Your task to perform on an android device: turn on data saver in the chrome app Image 0: 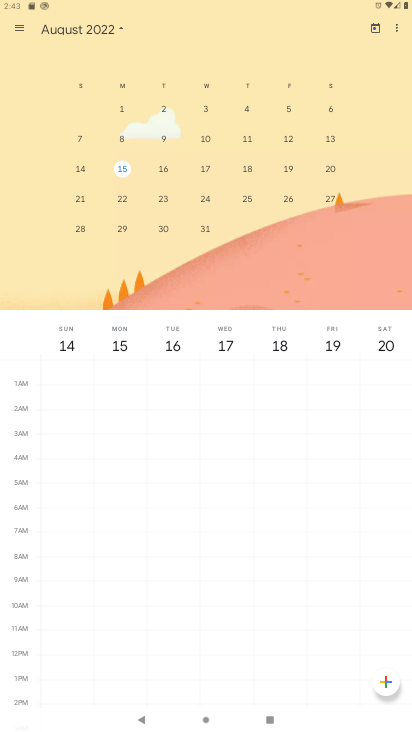
Step 0: press home button
Your task to perform on an android device: turn on data saver in the chrome app Image 1: 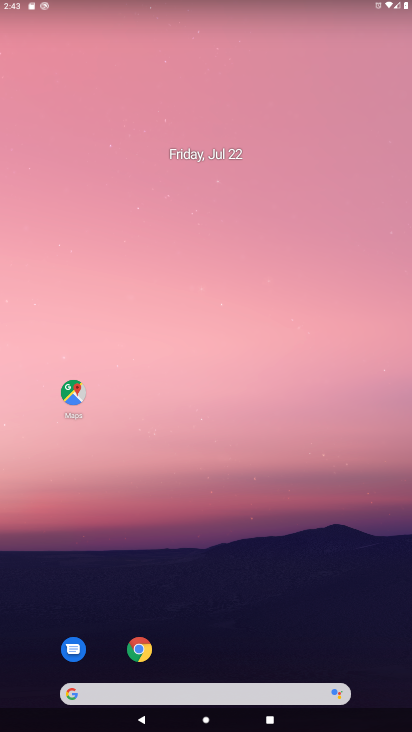
Step 1: click (137, 656)
Your task to perform on an android device: turn on data saver in the chrome app Image 2: 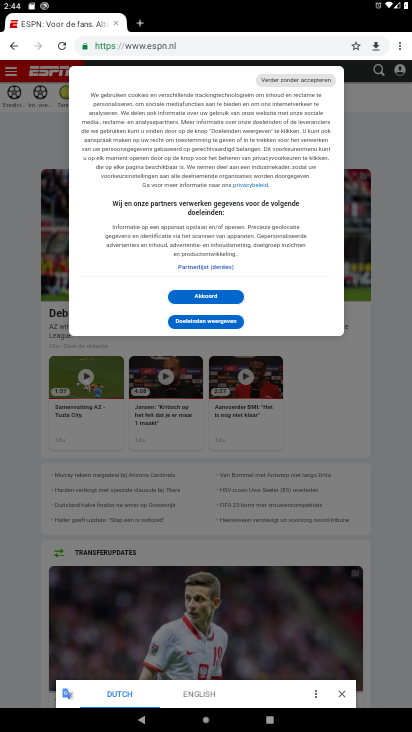
Step 2: click (214, 299)
Your task to perform on an android device: turn on data saver in the chrome app Image 3: 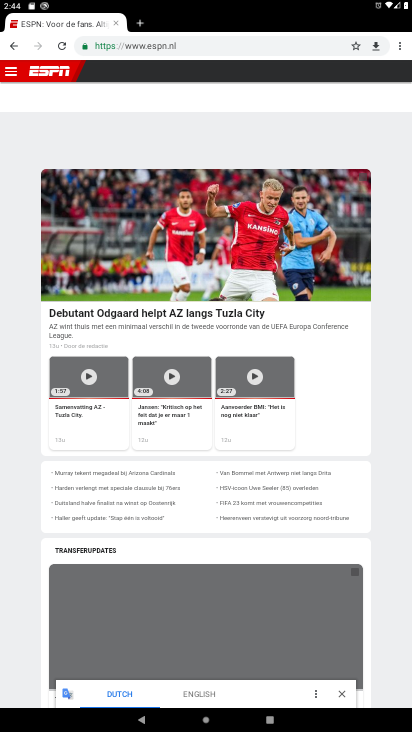
Step 3: click (400, 49)
Your task to perform on an android device: turn on data saver in the chrome app Image 4: 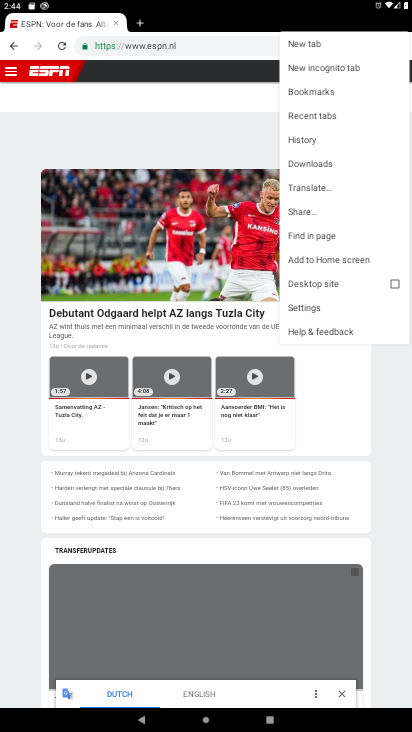
Step 4: click (301, 303)
Your task to perform on an android device: turn on data saver in the chrome app Image 5: 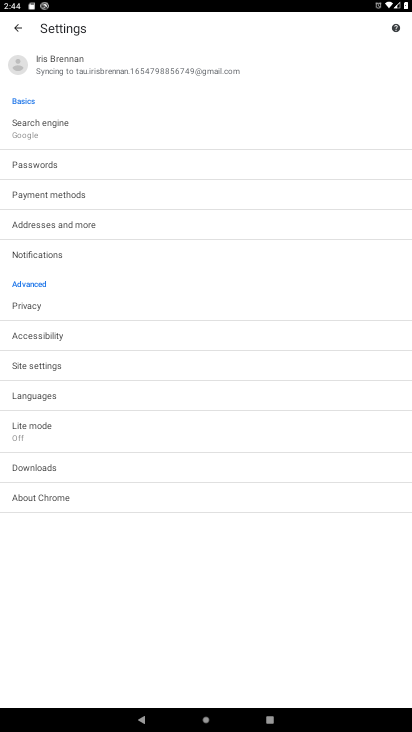
Step 5: click (31, 425)
Your task to perform on an android device: turn on data saver in the chrome app Image 6: 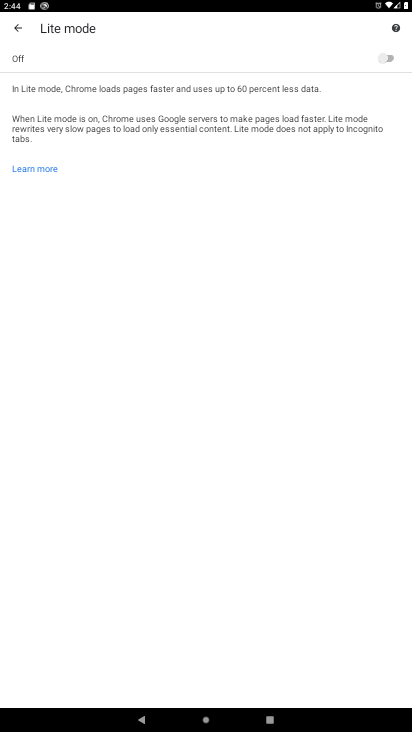
Step 6: click (392, 57)
Your task to perform on an android device: turn on data saver in the chrome app Image 7: 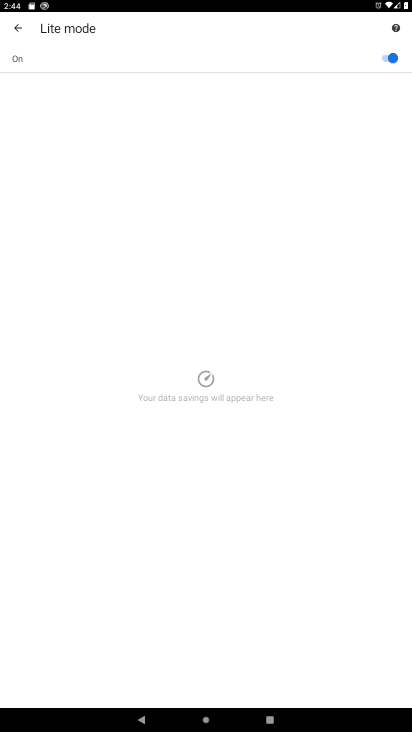
Step 7: task complete